Your task to perform on an android device: open a bookmark in the chrome app Image 0: 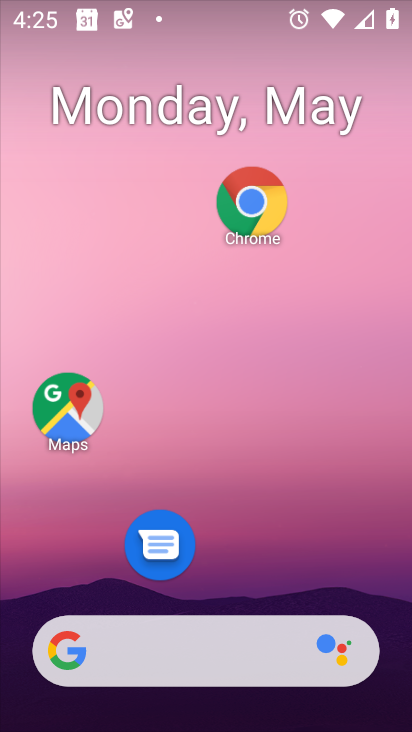
Step 0: click (230, 219)
Your task to perform on an android device: open a bookmark in the chrome app Image 1: 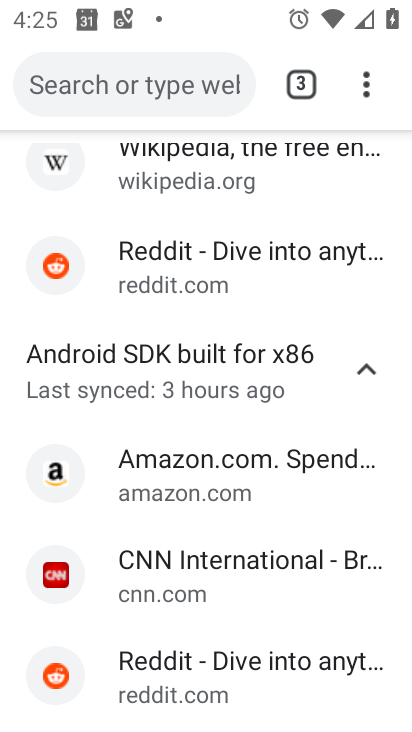
Step 1: click (184, 179)
Your task to perform on an android device: open a bookmark in the chrome app Image 2: 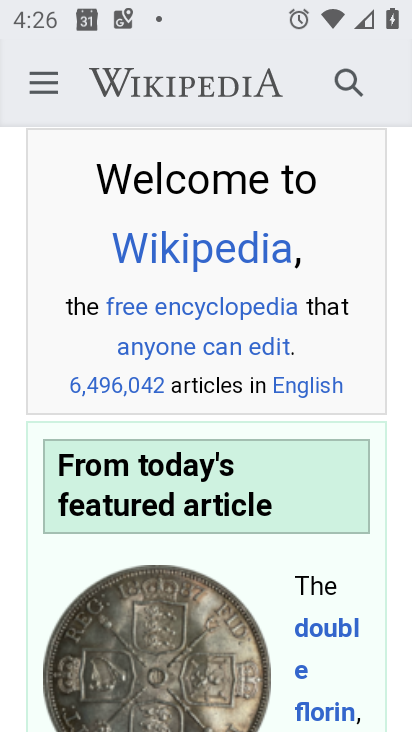
Step 2: task complete